Your task to perform on an android device: change the clock display to show seconds Image 0: 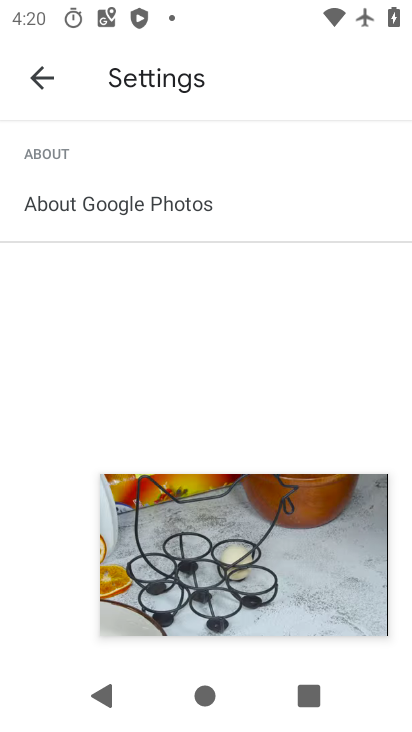
Step 0: press home button
Your task to perform on an android device: change the clock display to show seconds Image 1: 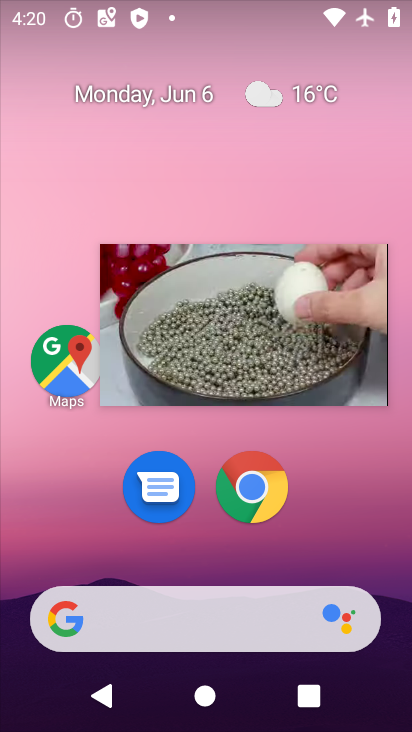
Step 1: drag from (322, 492) to (387, 12)
Your task to perform on an android device: change the clock display to show seconds Image 2: 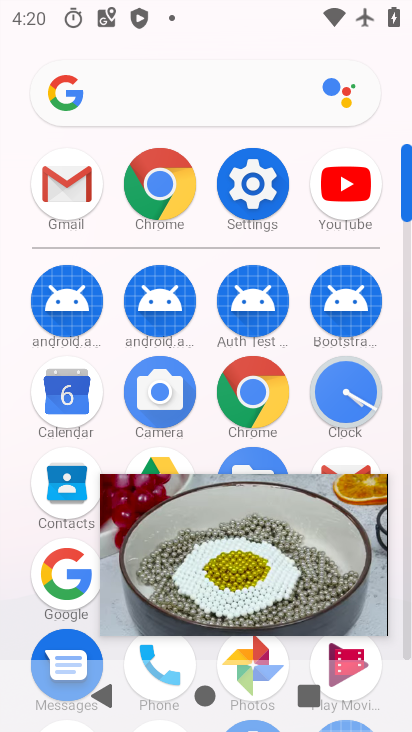
Step 2: click (333, 375)
Your task to perform on an android device: change the clock display to show seconds Image 3: 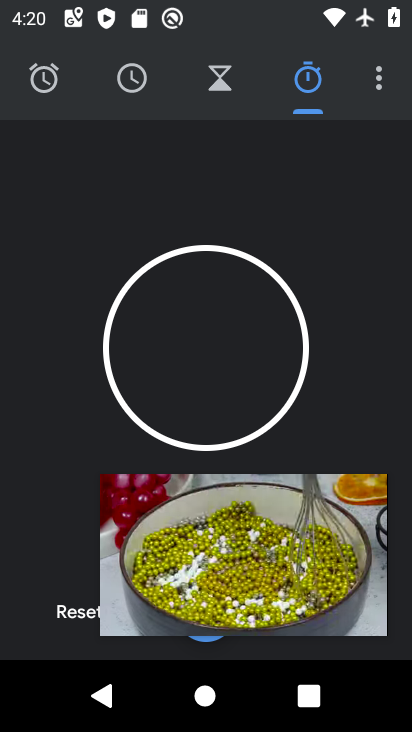
Step 3: click (193, 525)
Your task to perform on an android device: change the clock display to show seconds Image 4: 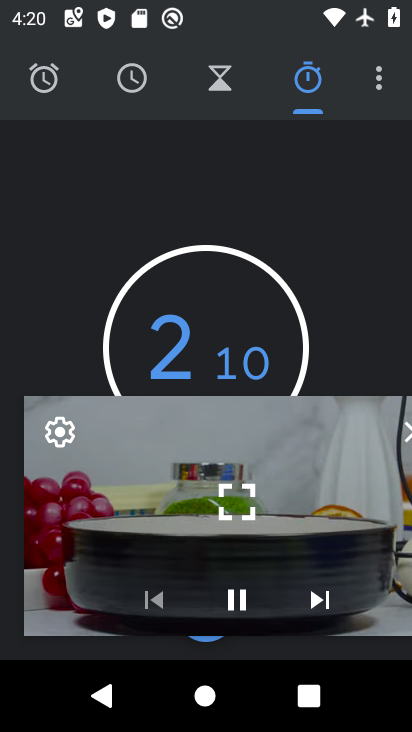
Step 4: click (408, 425)
Your task to perform on an android device: change the clock display to show seconds Image 5: 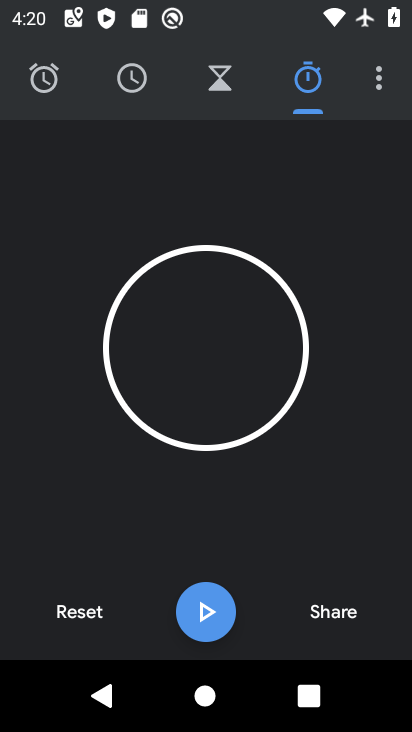
Step 5: click (383, 72)
Your task to perform on an android device: change the clock display to show seconds Image 6: 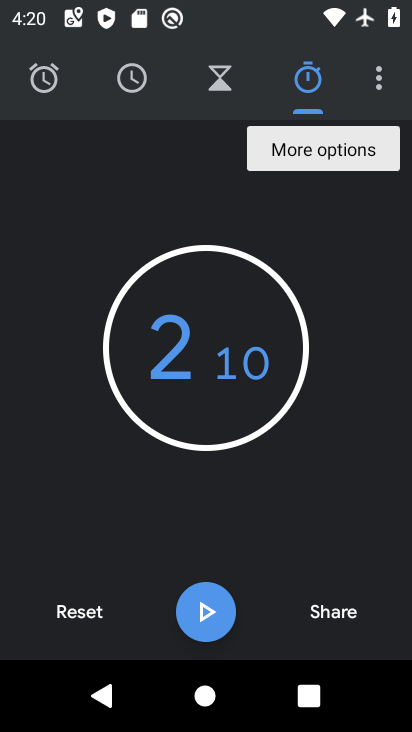
Step 6: click (385, 75)
Your task to perform on an android device: change the clock display to show seconds Image 7: 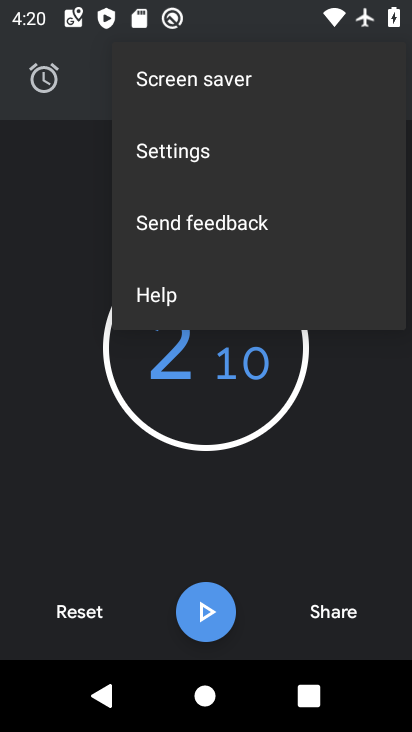
Step 7: click (230, 157)
Your task to perform on an android device: change the clock display to show seconds Image 8: 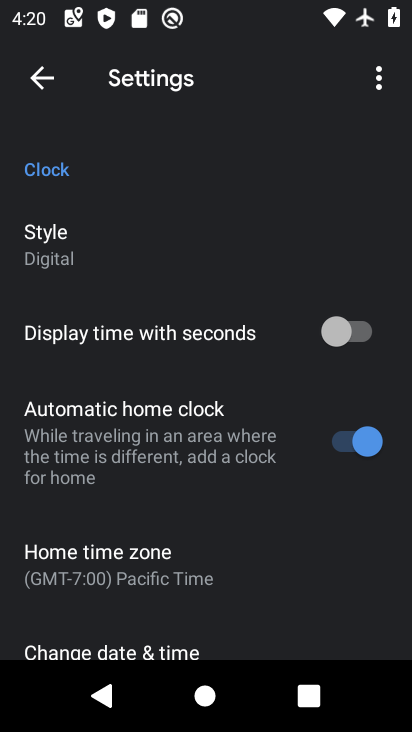
Step 8: click (337, 335)
Your task to perform on an android device: change the clock display to show seconds Image 9: 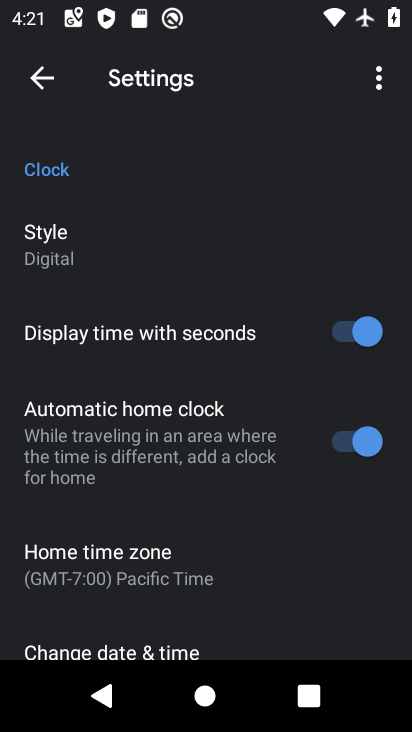
Step 9: task complete